Your task to perform on an android device: Is it going to rain tomorrow? Image 0: 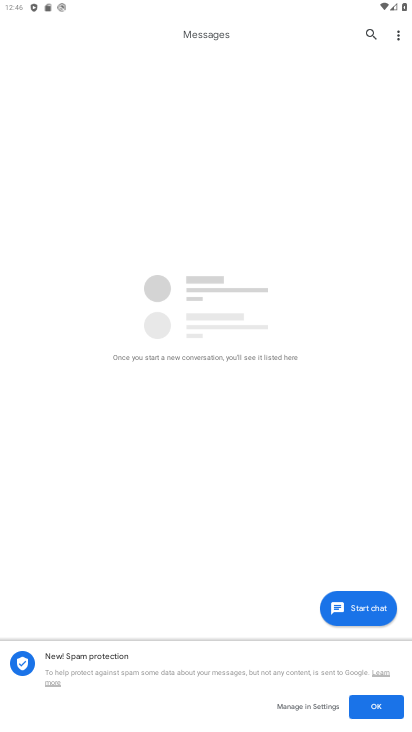
Step 0: press home button
Your task to perform on an android device: Is it going to rain tomorrow? Image 1: 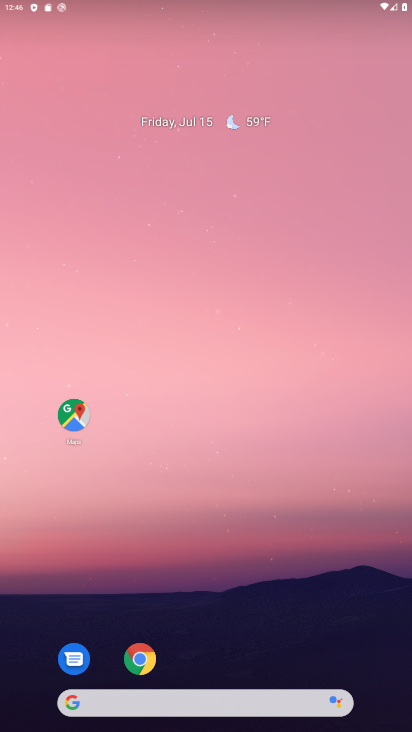
Step 1: drag from (199, 660) to (234, 128)
Your task to perform on an android device: Is it going to rain tomorrow? Image 2: 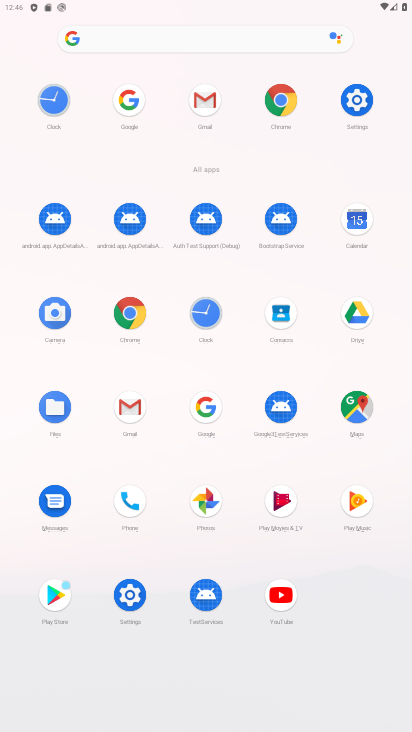
Step 2: click (211, 415)
Your task to perform on an android device: Is it going to rain tomorrow? Image 3: 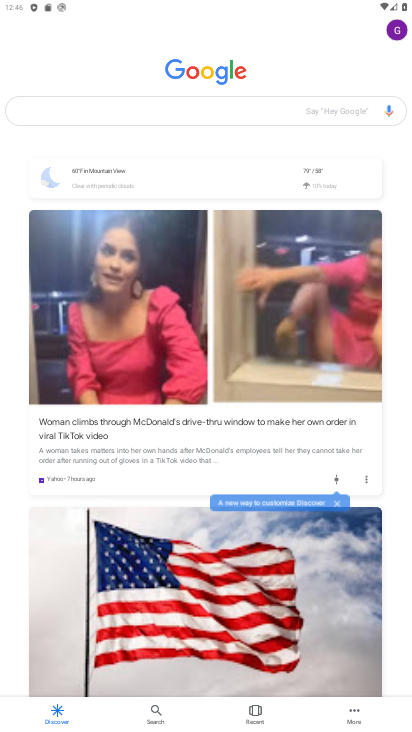
Step 3: click (187, 118)
Your task to perform on an android device: Is it going to rain tomorrow? Image 4: 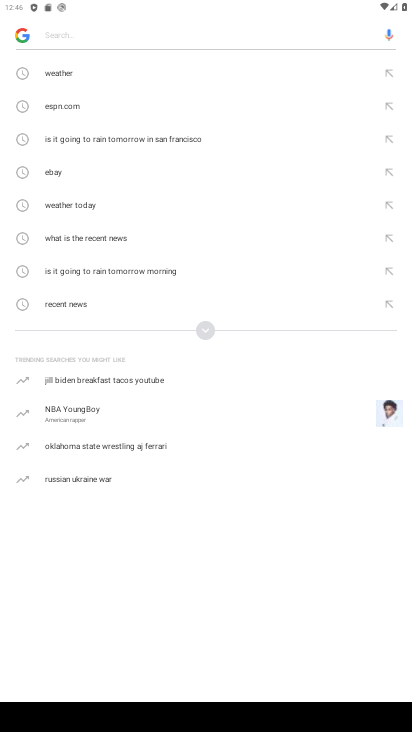
Step 4: type "is it going to rain tomorrow"
Your task to perform on an android device: Is it going to rain tomorrow? Image 5: 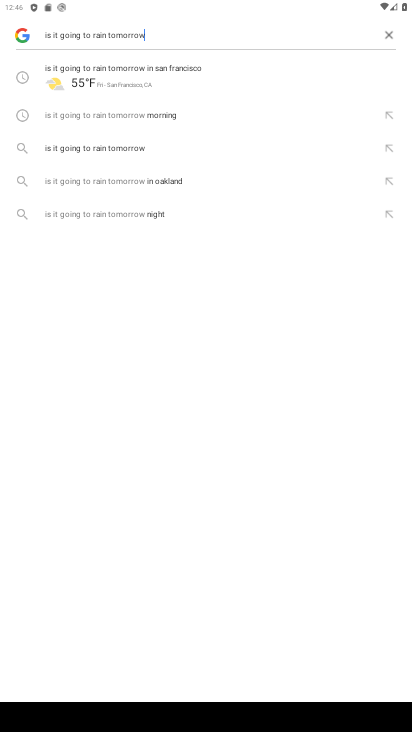
Step 5: click (135, 154)
Your task to perform on an android device: Is it going to rain tomorrow? Image 6: 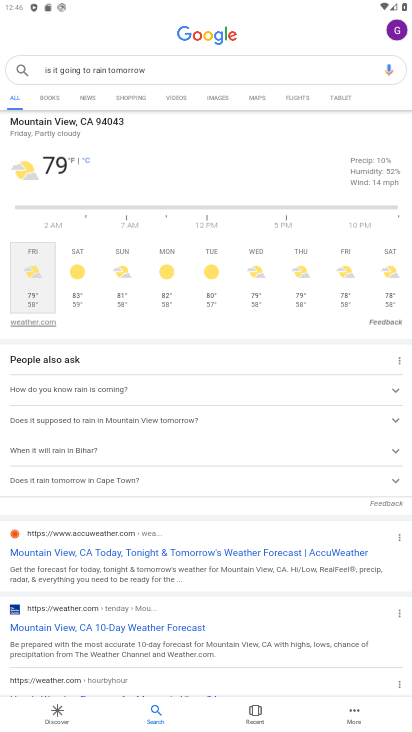
Step 6: task complete